Your task to perform on an android device: open app "Instagram" Image 0: 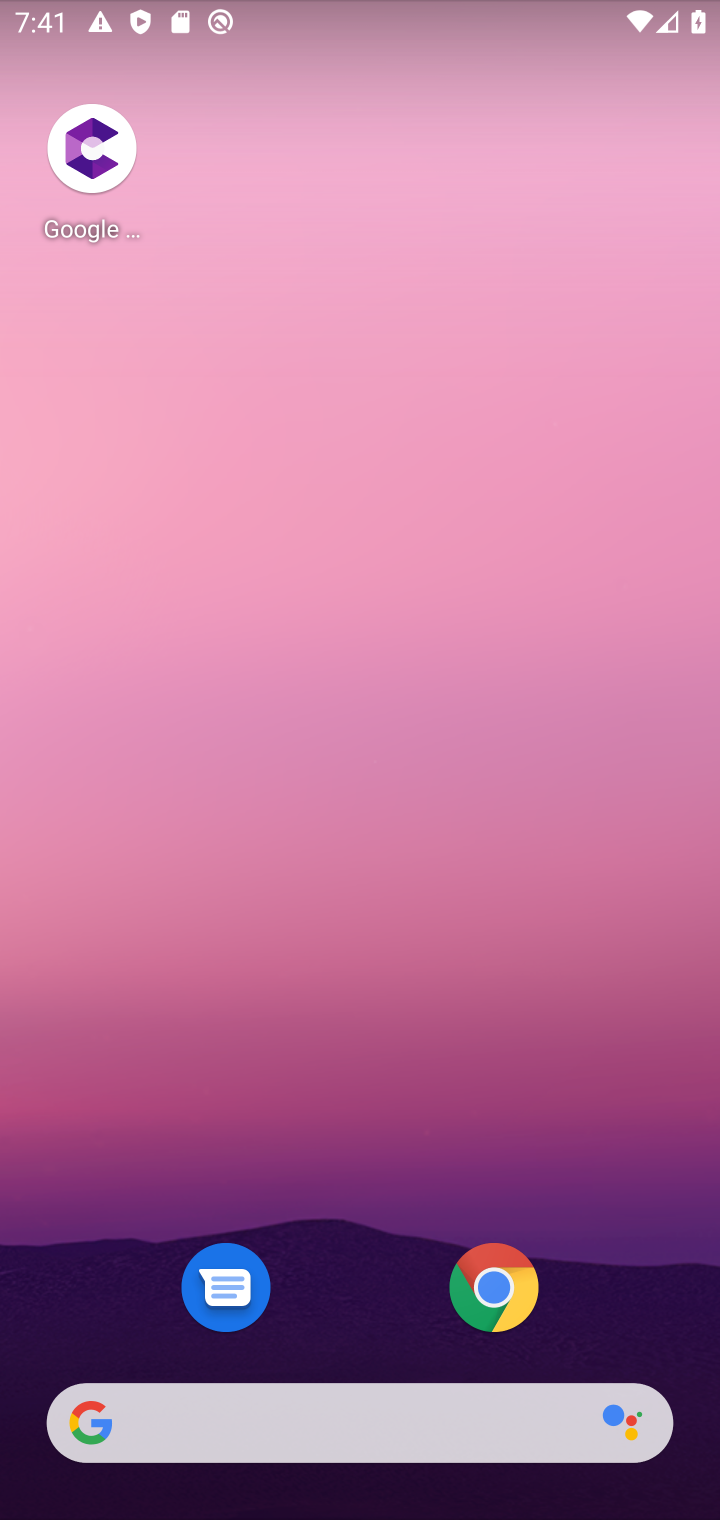
Step 0: drag from (512, 1398) to (399, 709)
Your task to perform on an android device: open app "Instagram" Image 1: 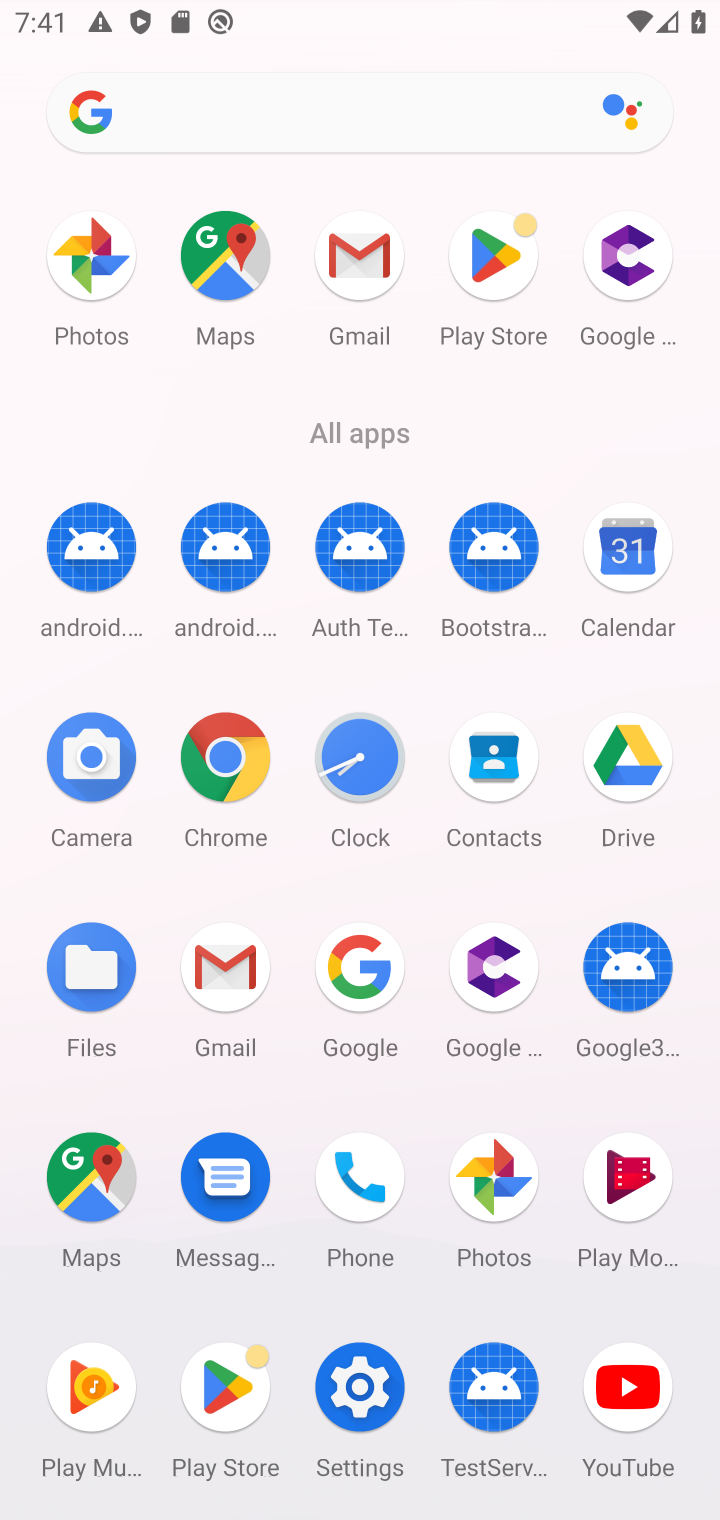
Step 1: click (519, 227)
Your task to perform on an android device: open app "Instagram" Image 2: 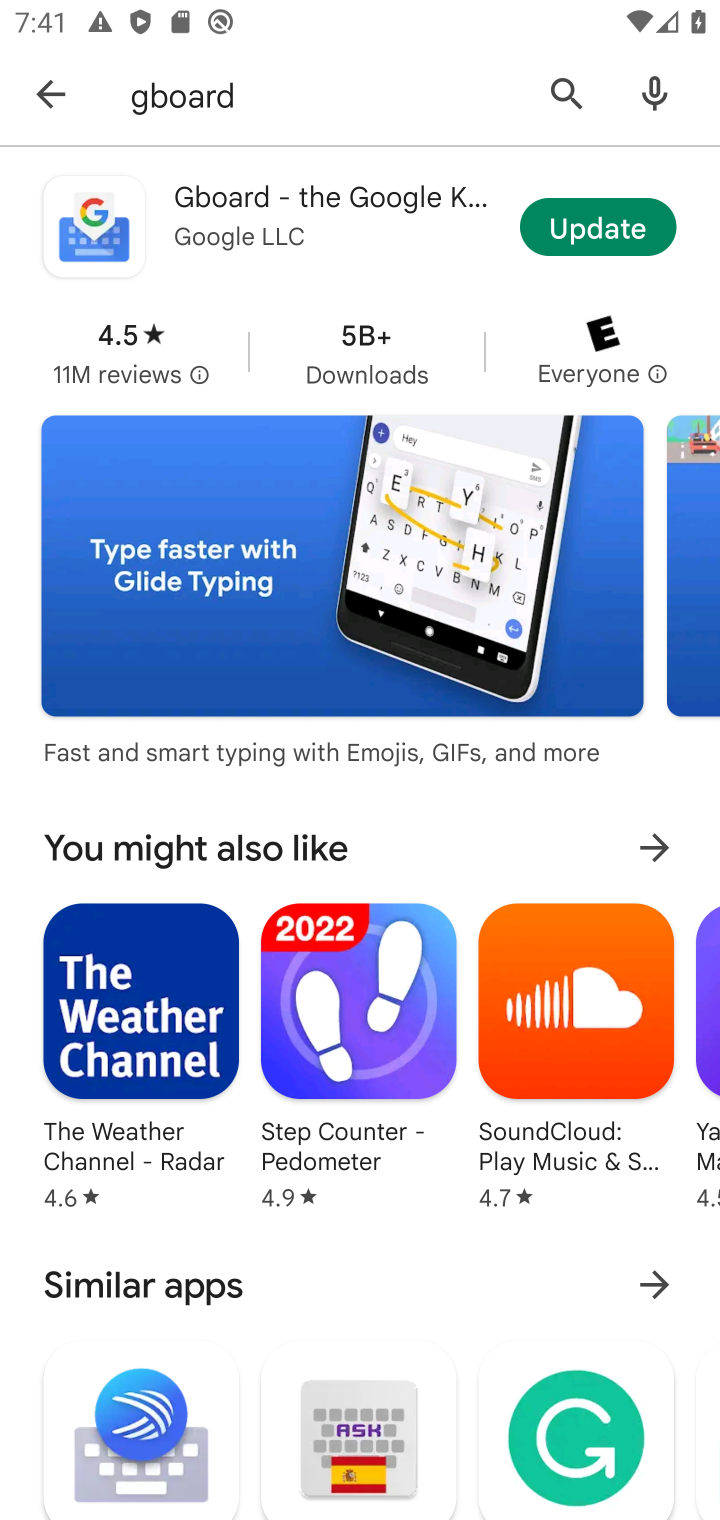
Step 2: click (567, 87)
Your task to perform on an android device: open app "Instagram" Image 3: 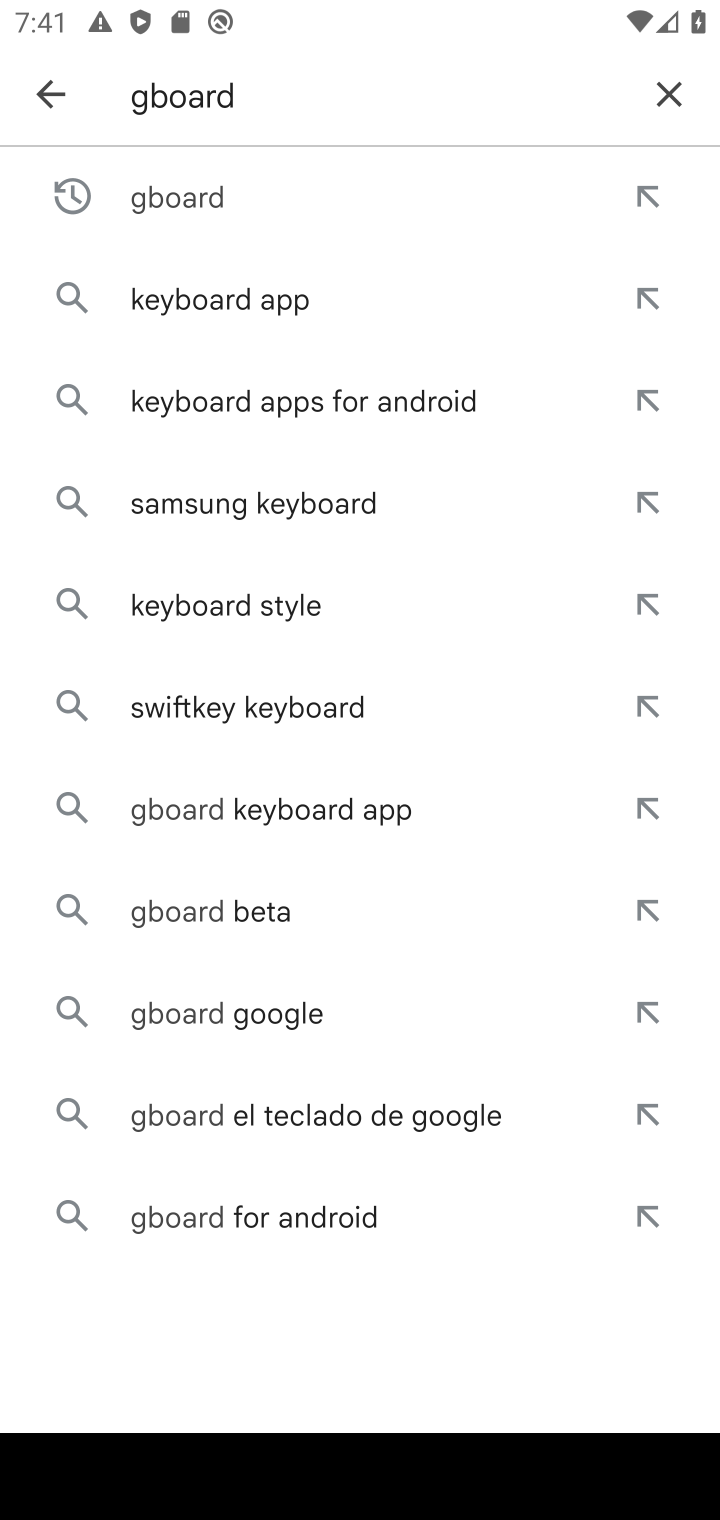
Step 3: click (654, 94)
Your task to perform on an android device: open app "Instagram" Image 4: 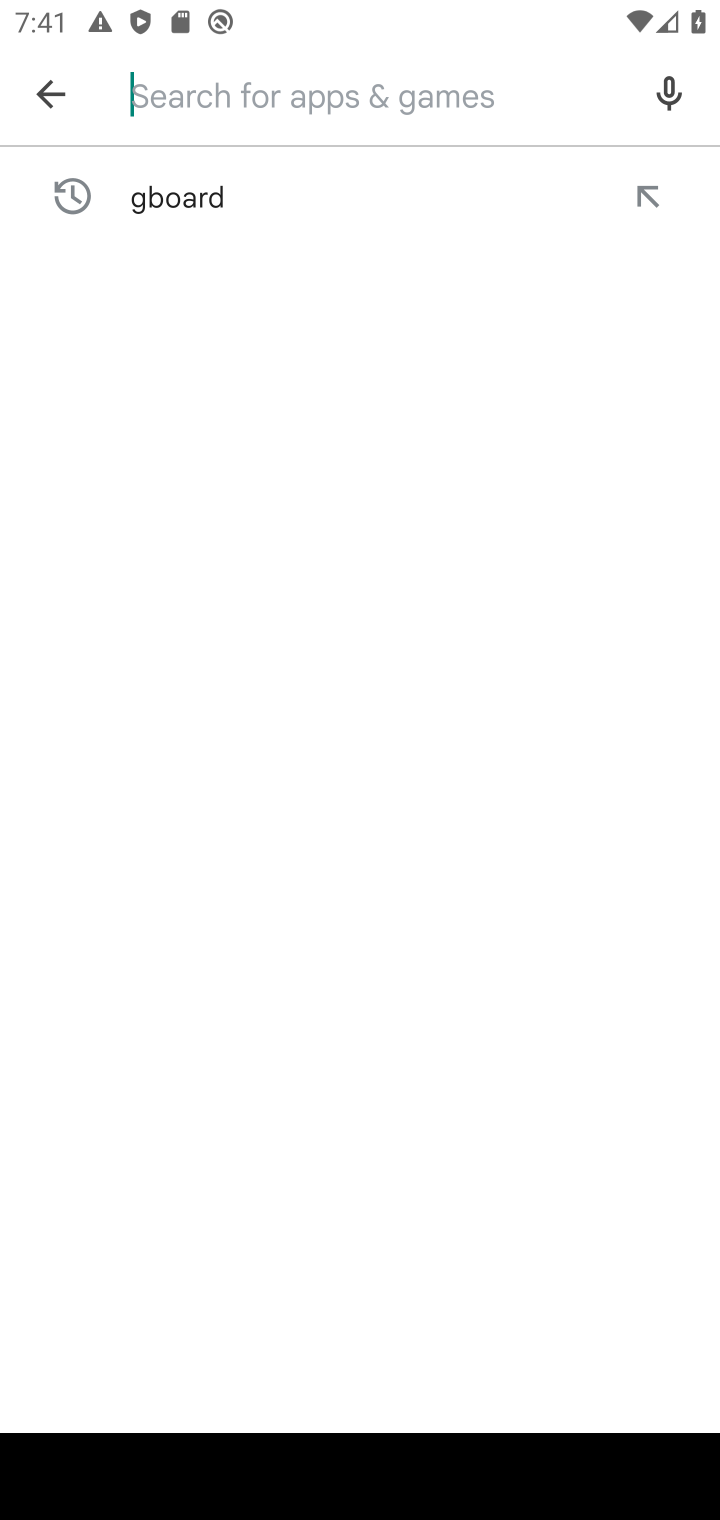
Step 4: type "Instagram"
Your task to perform on an android device: open app "Instagram" Image 5: 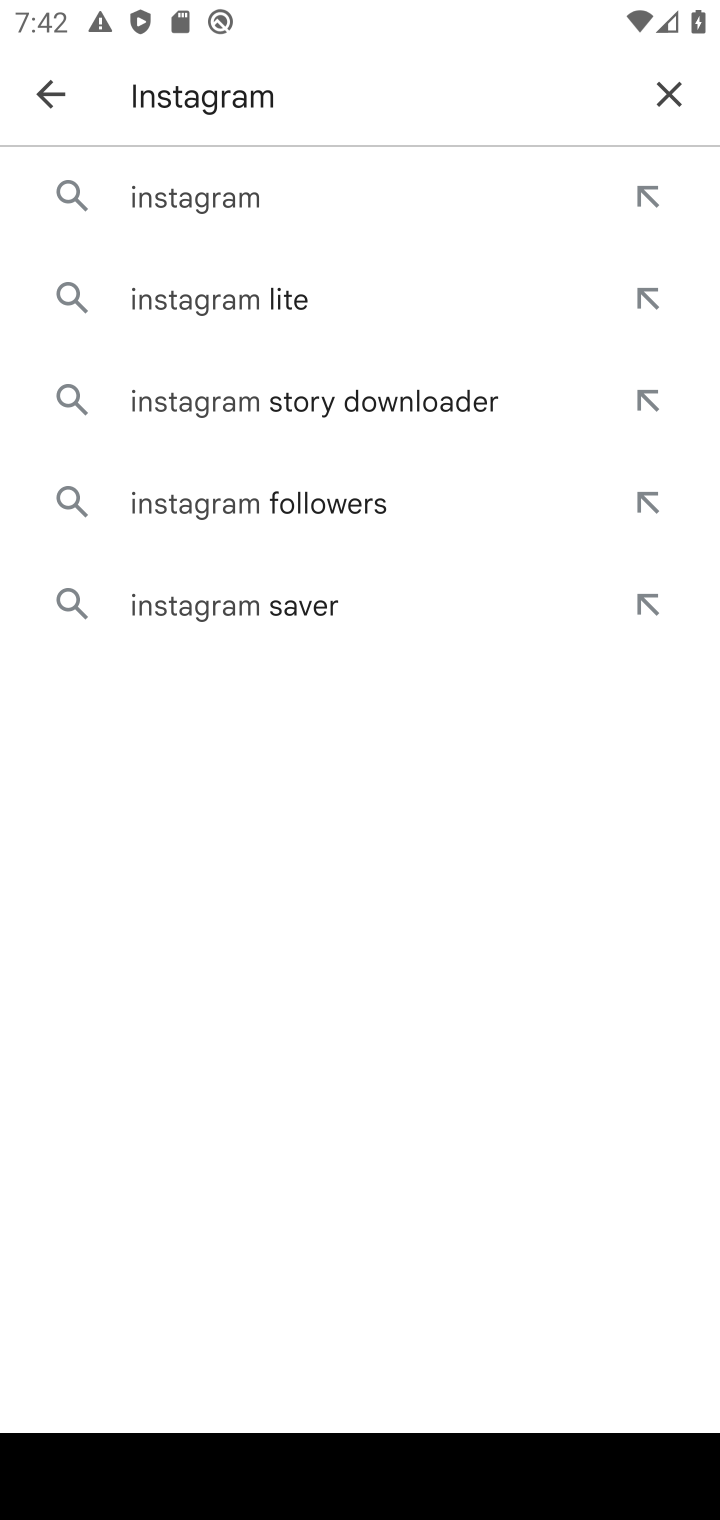
Step 5: type "Instagram"
Your task to perform on an android device: open app "Instagram" Image 6: 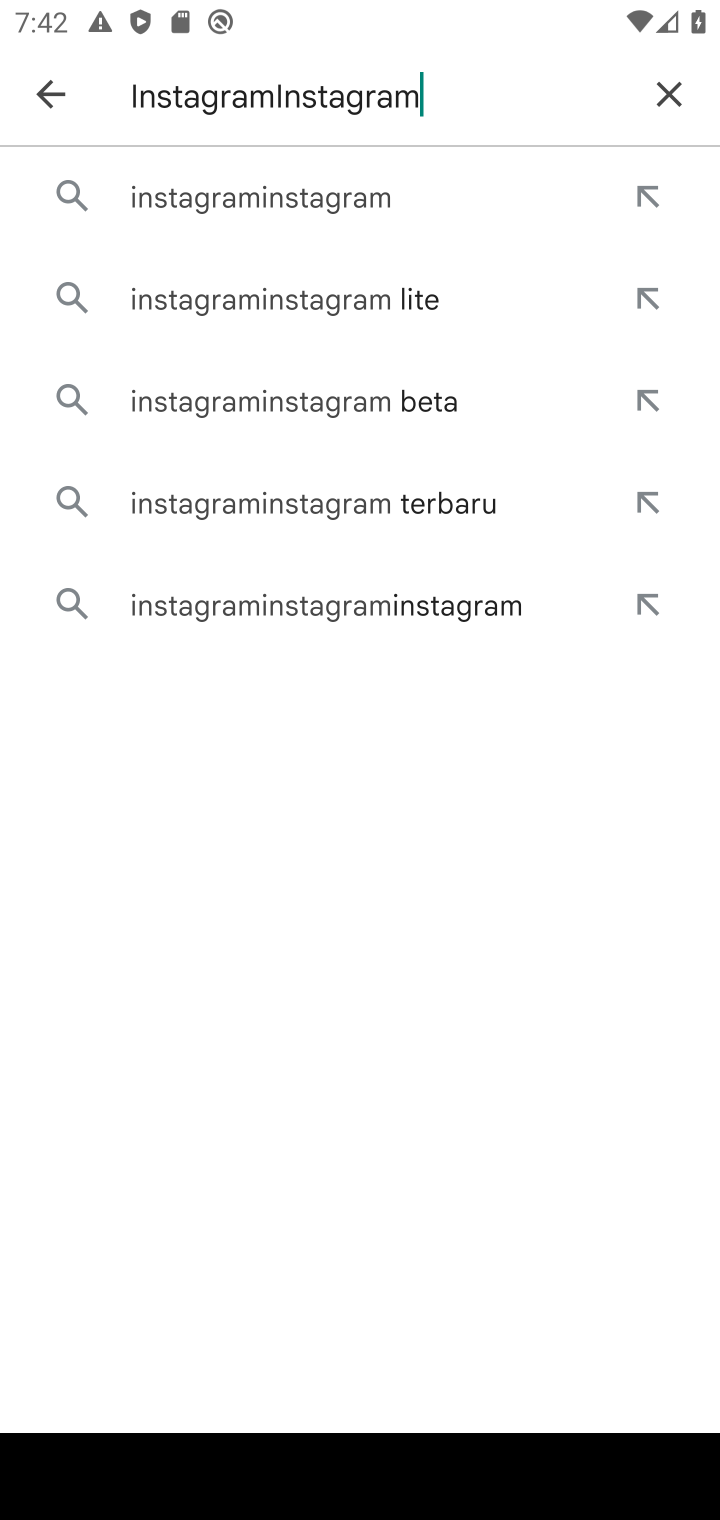
Step 6: click (670, 90)
Your task to perform on an android device: open app "Instagram" Image 7: 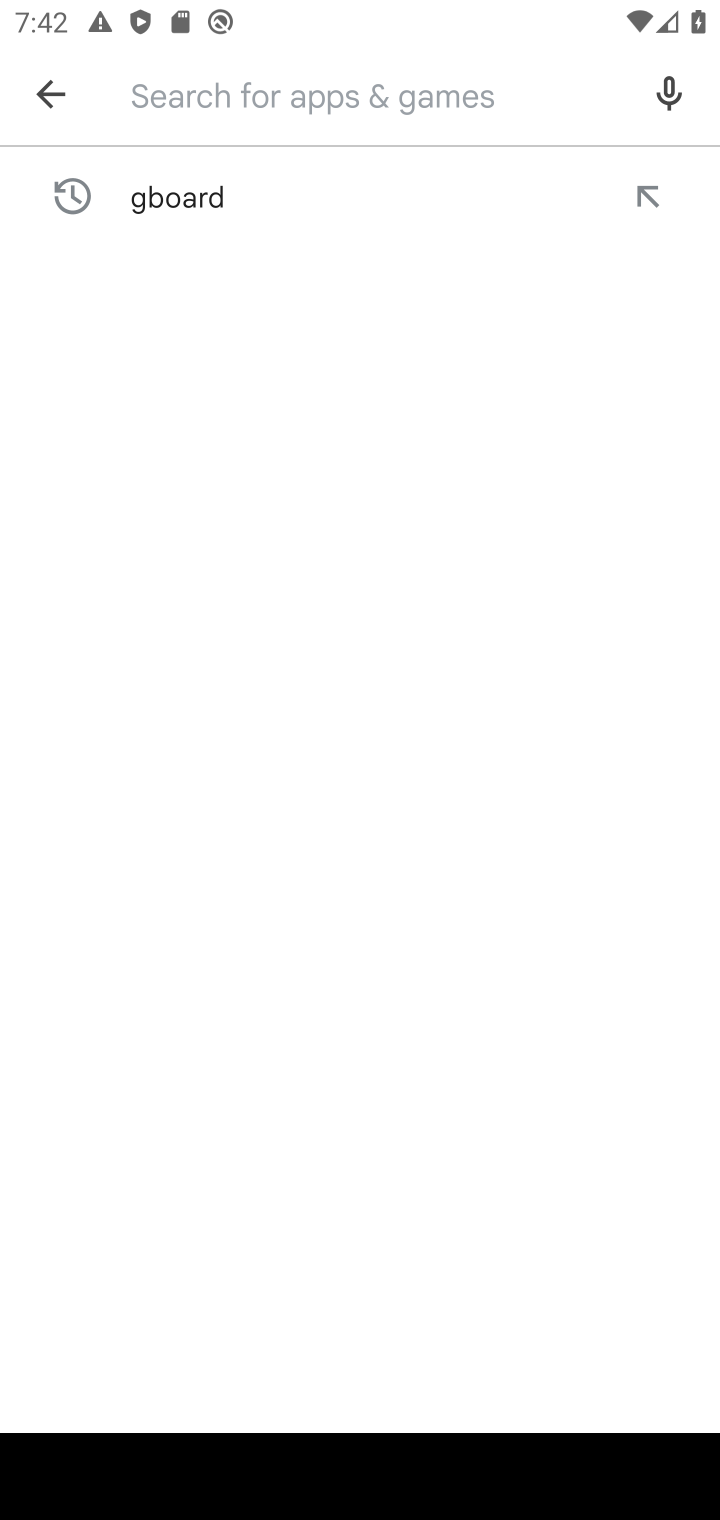
Step 7: type "Instagram"
Your task to perform on an android device: open app "Instagram" Image 8: 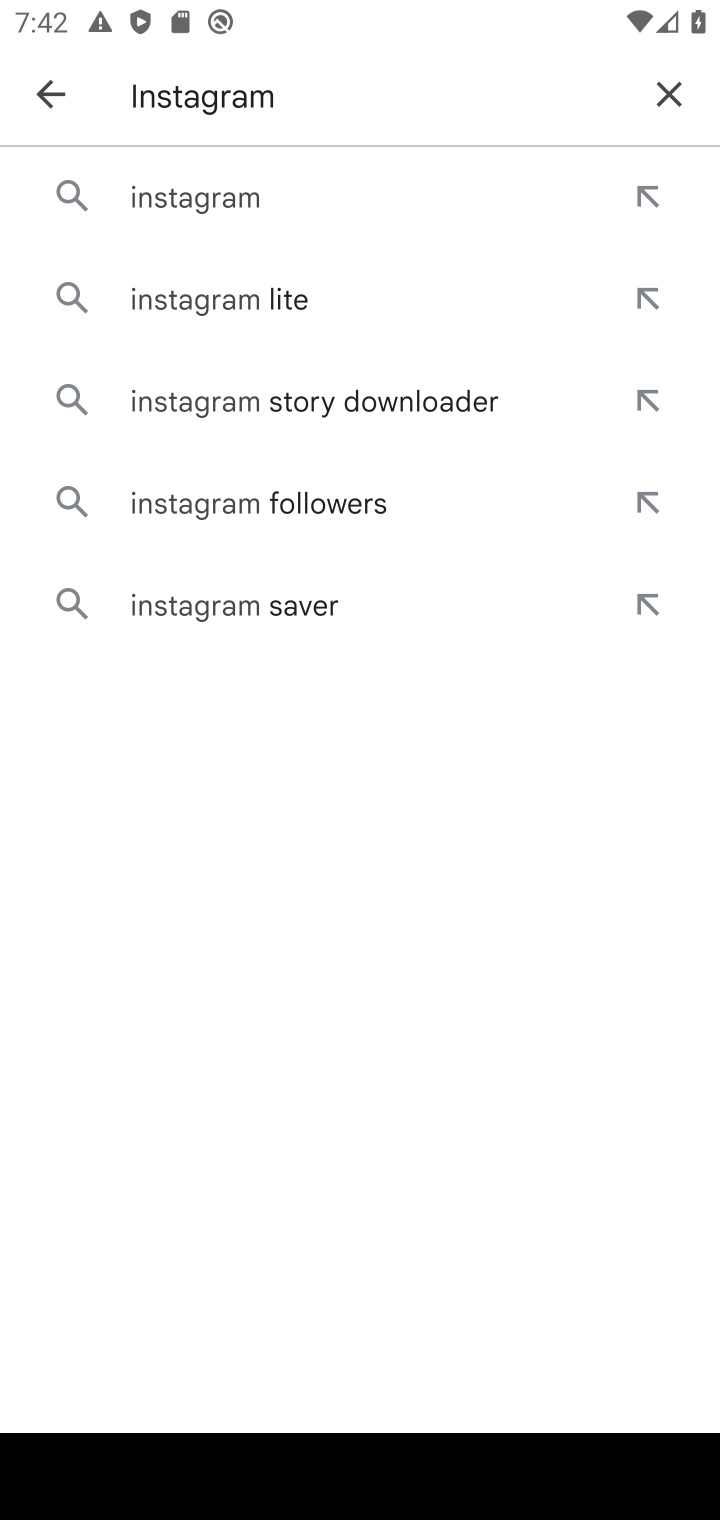
Step 8: click (239, 202)
Your task to perform on an android device: open app "Instagram" Image 9: 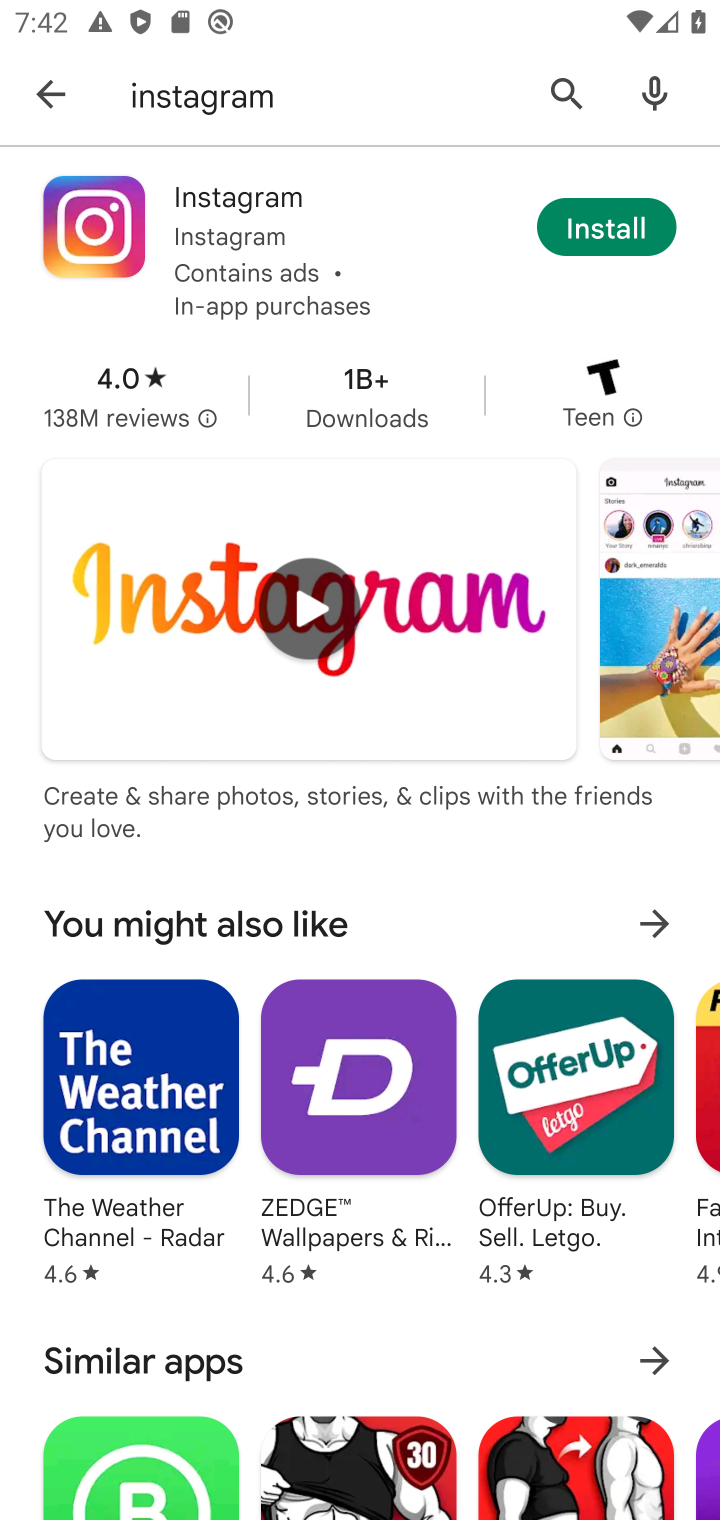
Step 9: task complete